Your task to perform on an android device: add a contact in the contacts app Image 0: 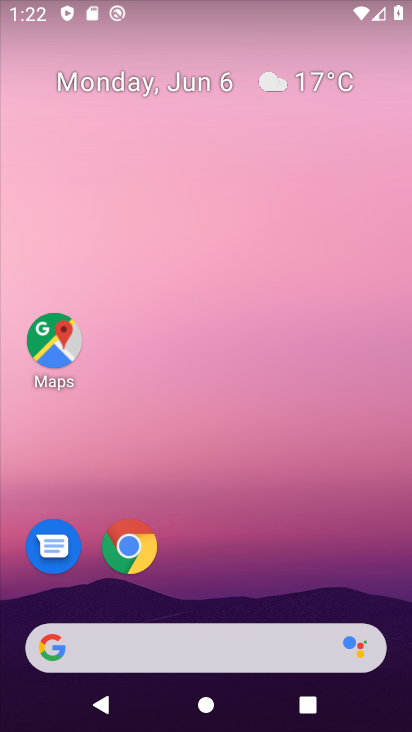
Step 0: drag from (152, 723) to (205, 68)
Your task to perform on an android device: add a contact in the contacts app Image 1: 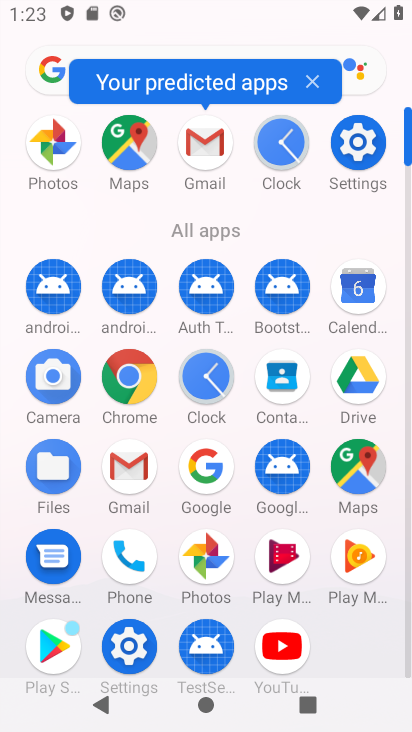
Step 1: click (281, 401)
Your task to perform on an android device: add a contact in the contacts app Image 2: 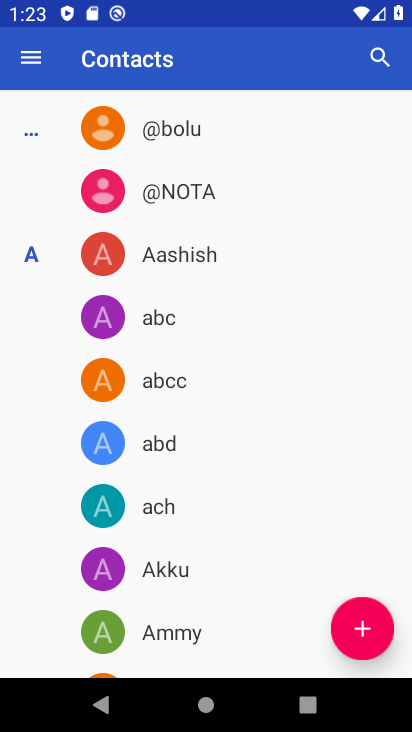
Step 2: click (364, 639)
Your task to perform on an android device: add a contact in the contacts app Image 3: 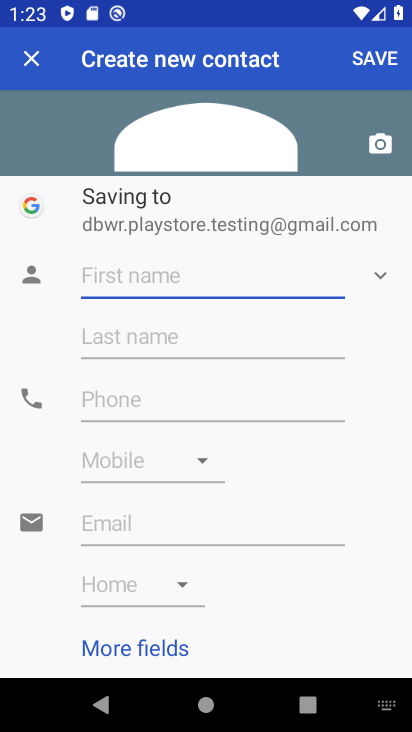
Step 3: type "ASM"
Your task to perform on an android device: add a contact in the contacts app Image 4: 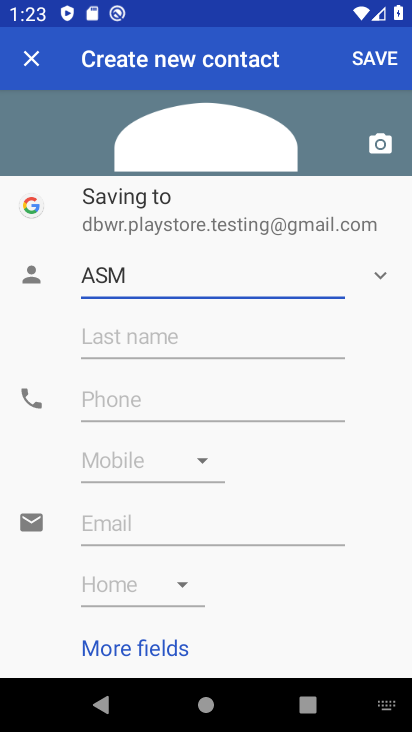
Step 4: click (117, 396)
Your task to perform on an android device: add a contact in the contacts app Image 5: 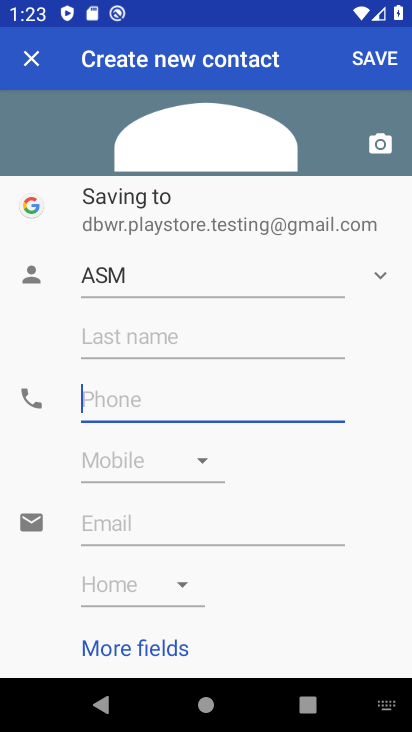
Step 5: type "9876253412"
Your task to perform on an android device: add a contact in the contacts app Image 6: 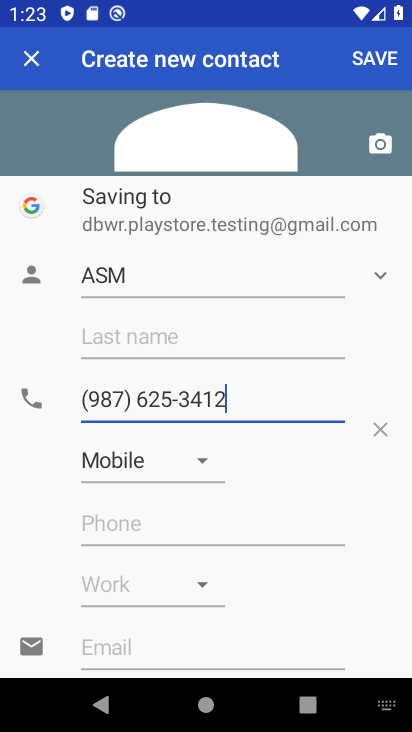
Step 6: click (359, 67)
Your task to perform on an android device: add a contact in the contacts app Image 7: 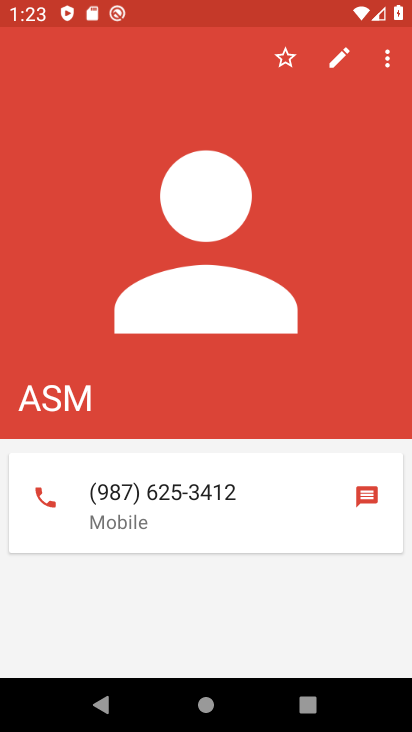
Step 7: task complete